Your task to perform on an android device: toggle priority inbox in the gmail app Image 0: 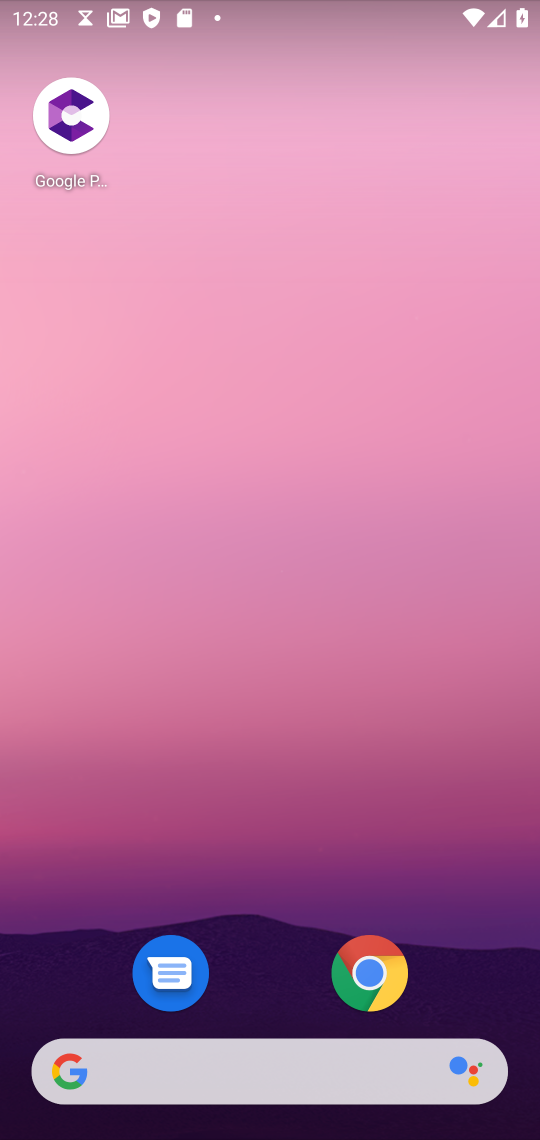
Step 0: drag from (309, 1013) to (383, 127)
Your task to perform on an android device: toggle priority inbox in the gmail app Image 1: 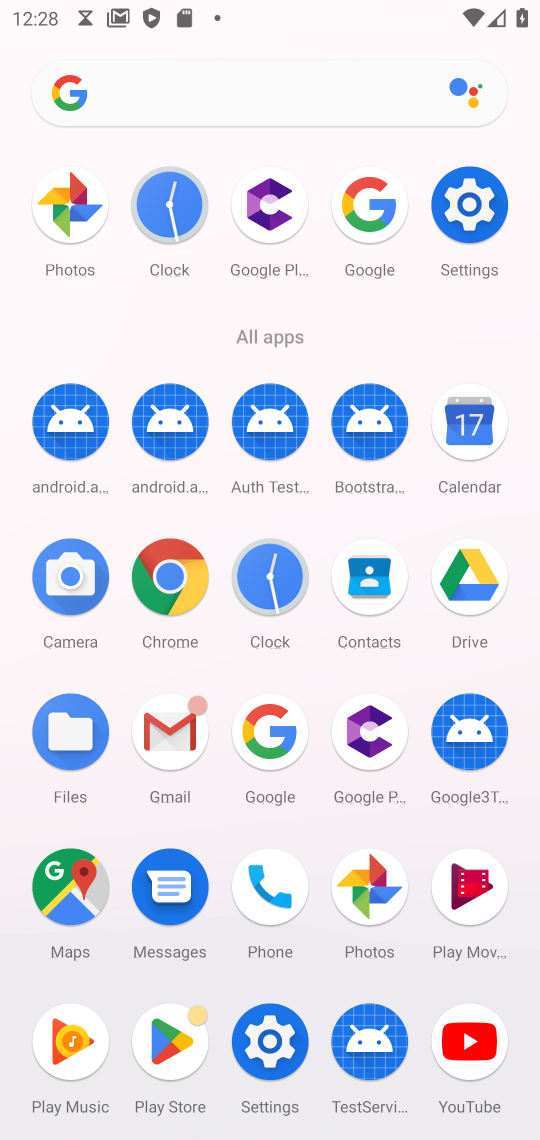
Step 1: click (170, 731)
Your task to perform on an android device: toggle priority inbox in the gmail app Image 2: 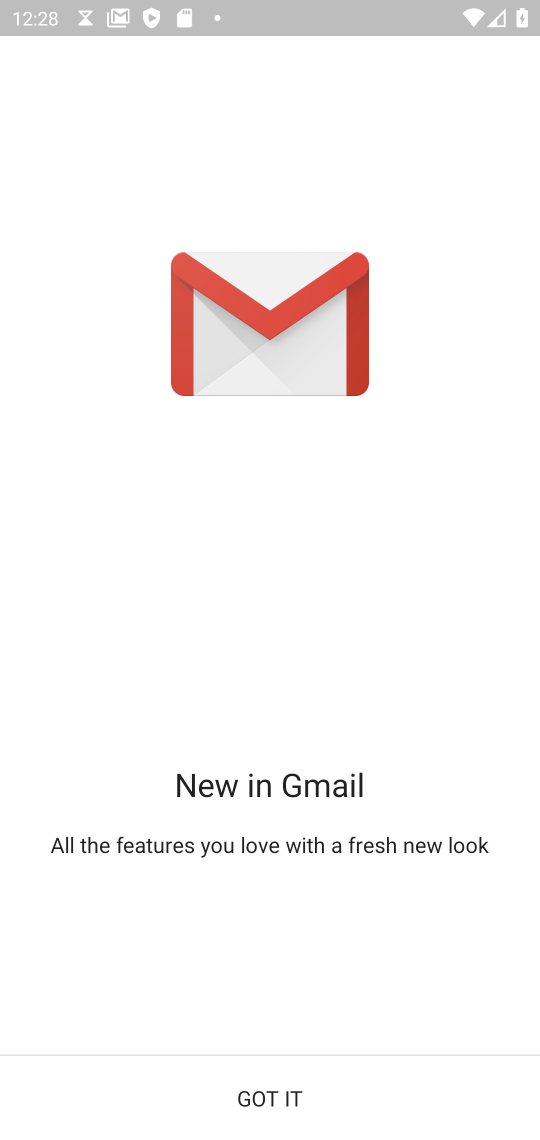
Step 2: click (290, 1097)
Your task to perform on an android device: toggle priority inbox in the gmail app Image 3: 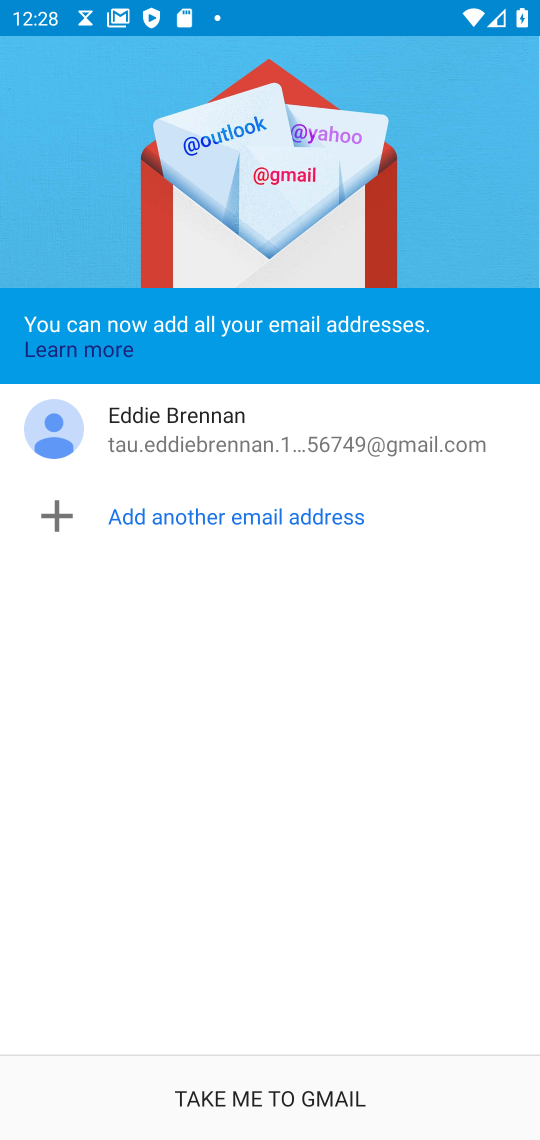
Step 3: click (290, 1097)
Your task to perform on an android device: toggle priority inbox in the gmail app Image 4: 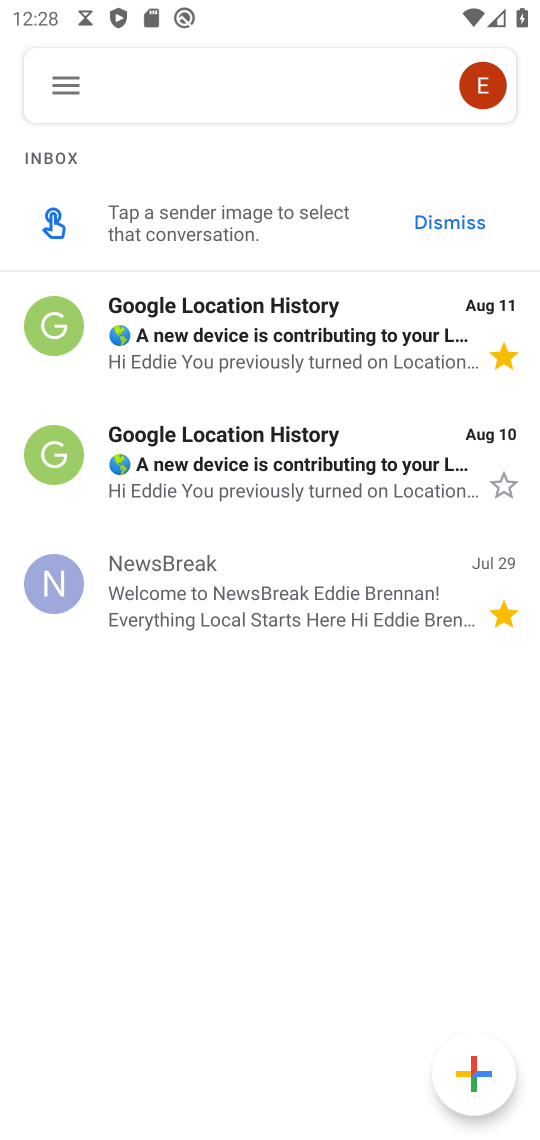
Step 4: click (56, 88)
Your task to perform on an android device: toggle priority inbox in the gmail app Image 5: 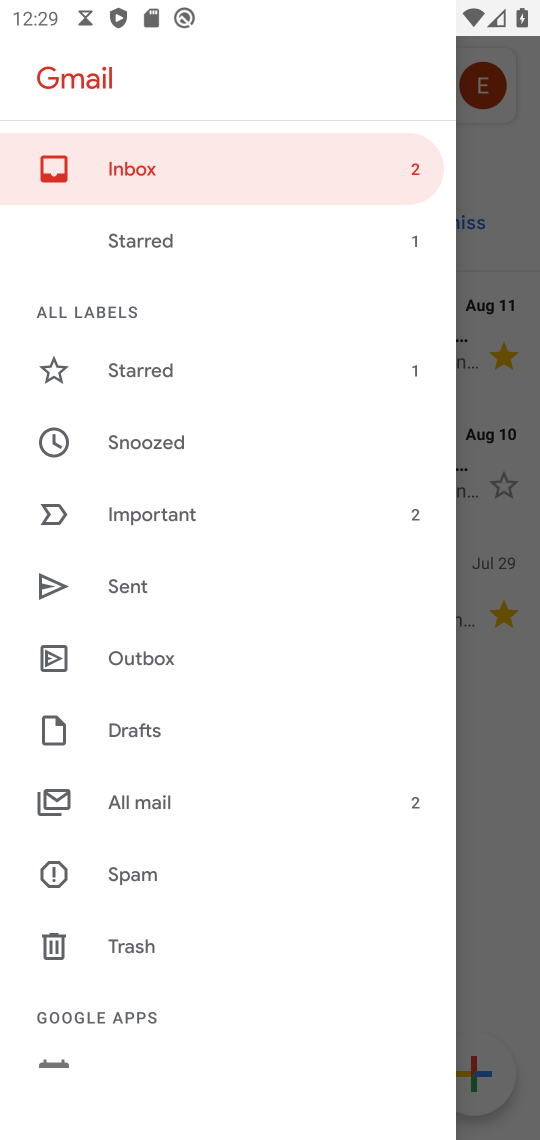
Step 5: drag from (198, 900) to (230, 744)
Your task to perform on an android device: toggle priority inbox in the gmail app Image 6: 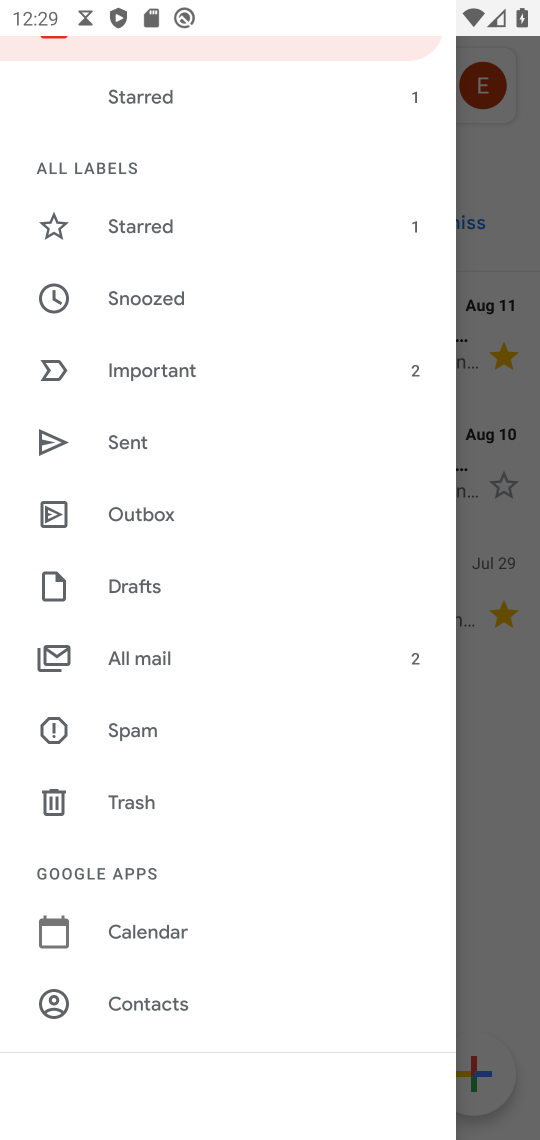
Step 6: drag from (203, 903) to (226, 764)
Your task to perform on an android device: toggle priority inbox in the gmail app Image 7: 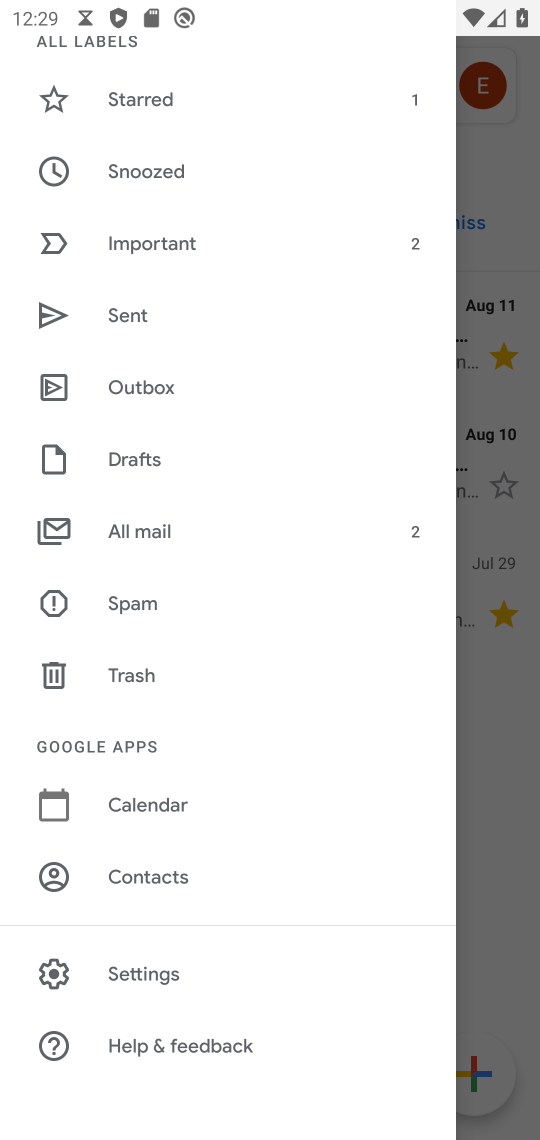
Step 7: click (172, 980)
Your task to perform on an android device: toggle priority inbox in the gmail app Image 8: 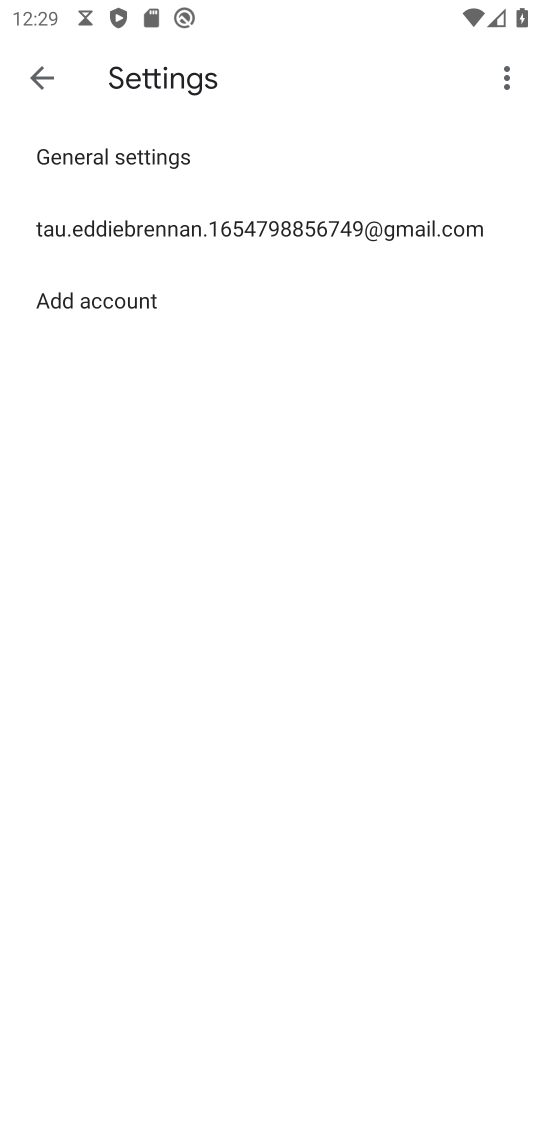
Step 8: click (273, 238)
Your task to perform on an android device: toggle priority inbox in the gmail app Image 9: 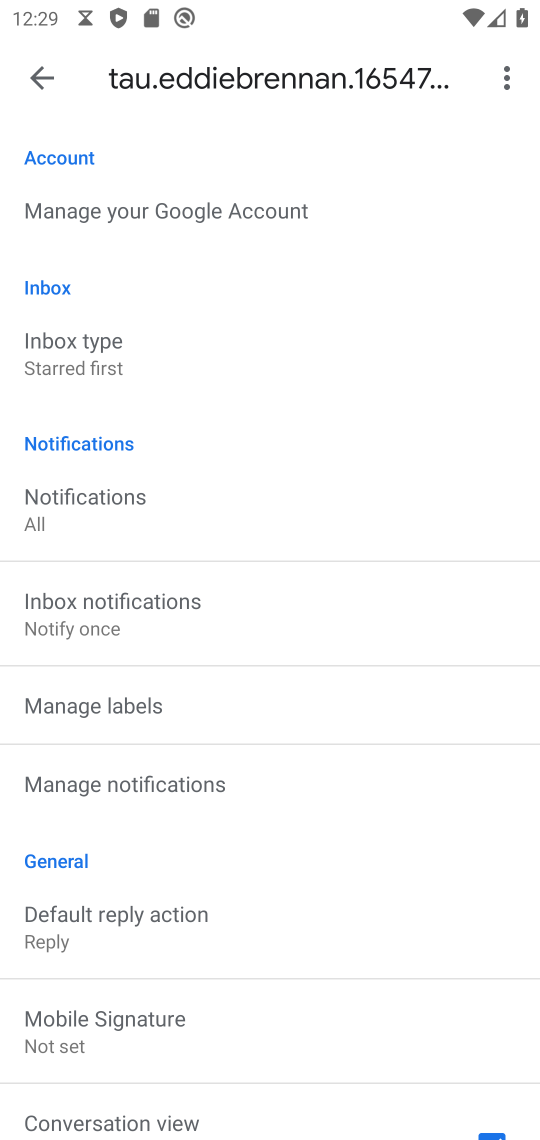
Step 9: drag from (237, 737) to (273, 571)
Your task to perform on an android device: toggle priority inbox in the gmail app Image 10: 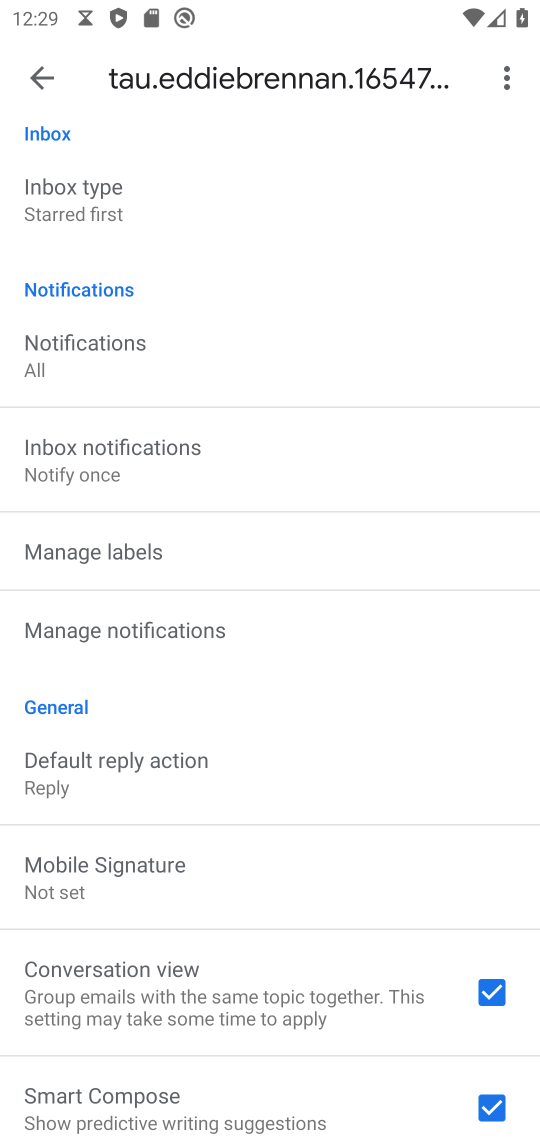
Step 10: click (92, 223)
Your task to perform on an android device: toggle priority inbox in the gmail app Image 11: 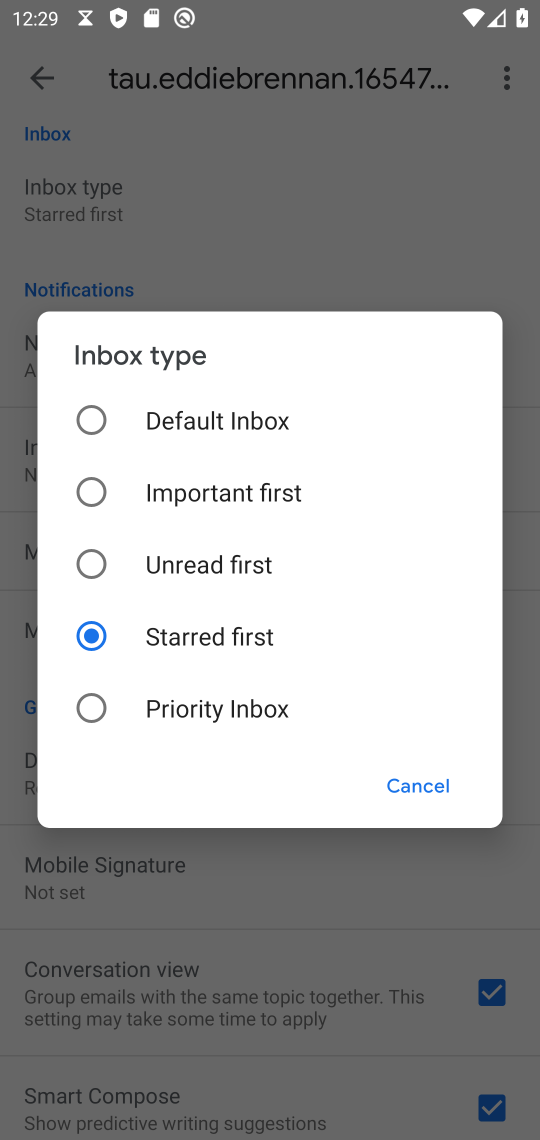
Step 11: click (91, 696)
Your task to perform on an android device: toggle priority inbox in the gmail app Image 12: 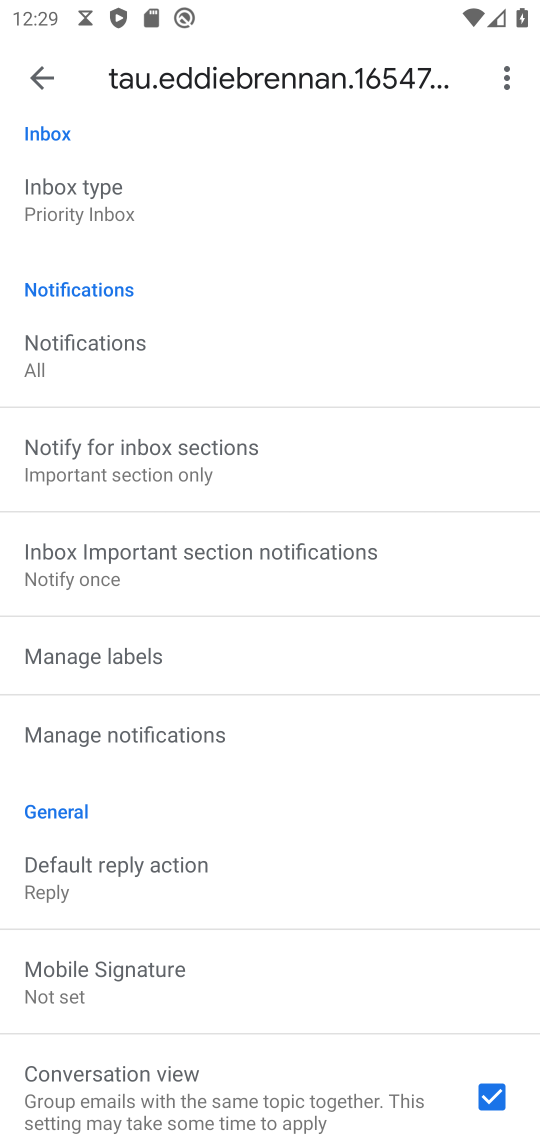
Step 12: task complete